Your task to perform on an android device: set default search engine in the chrome app Image 0: 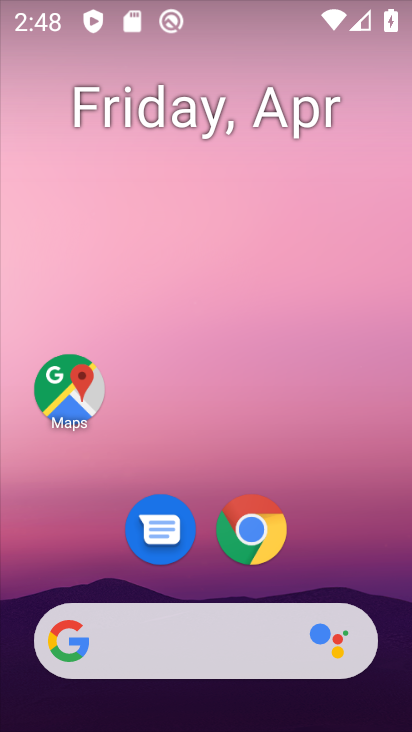
Step 0: drag from (250, 514) to (299, 145)
Your task to perform on an android device: set default search engine in the chrome app Image 1: 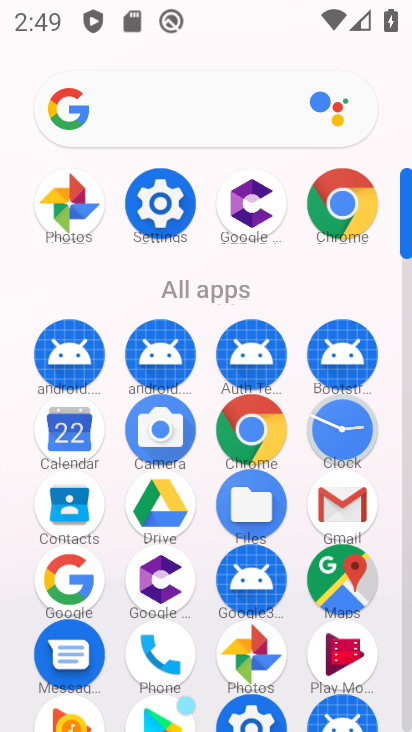
Step 1: click (249, 440)
Your task to perform on an android device: set default search engine in the chrome app Image 2: 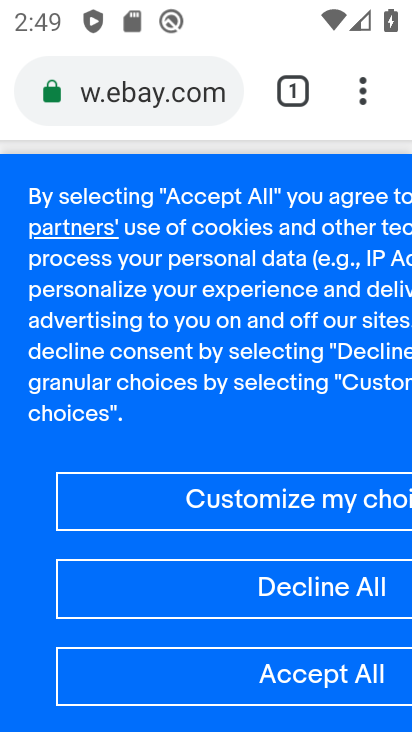
Step 2: click (366, 106)
Your task to perform on an android device: set default search engine in the chrome app Image 3: 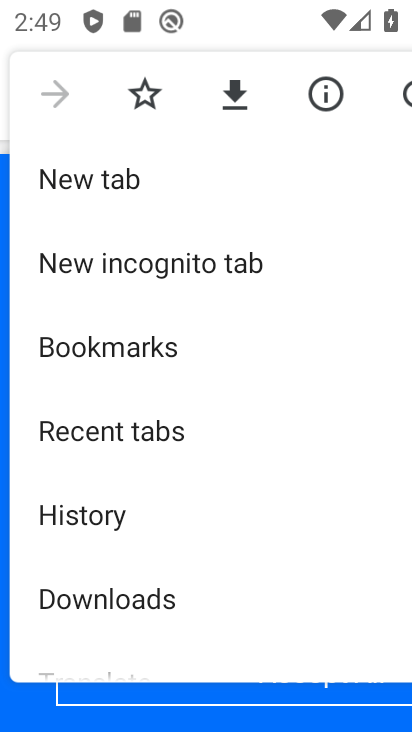
Step 3: drag from (230, 462) to (276, 1)
Your task to perform on an android device: set default search engine in the chrome app Image 4: 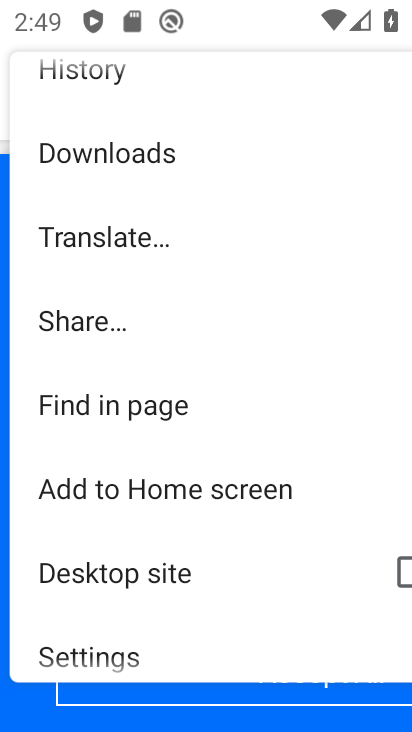
Step 4: drag from (208, 496) to (303, 0)
Your task to perform on an android device: set default search engine in the chrome app Image 5: 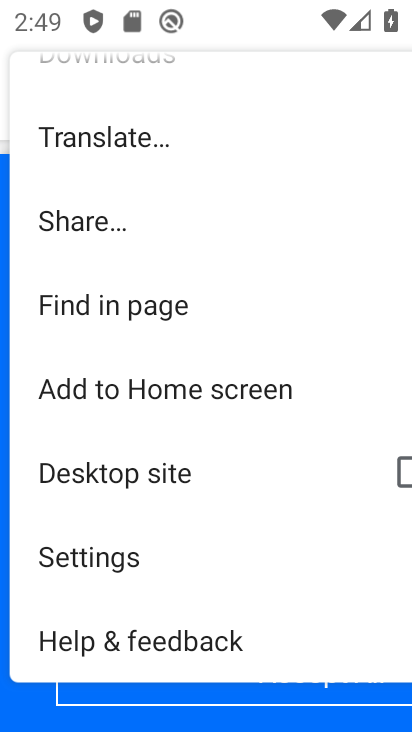
Step 5: click (197, 552)
Your task to perform on an android device: set default search engine in the chrome app Image 6: 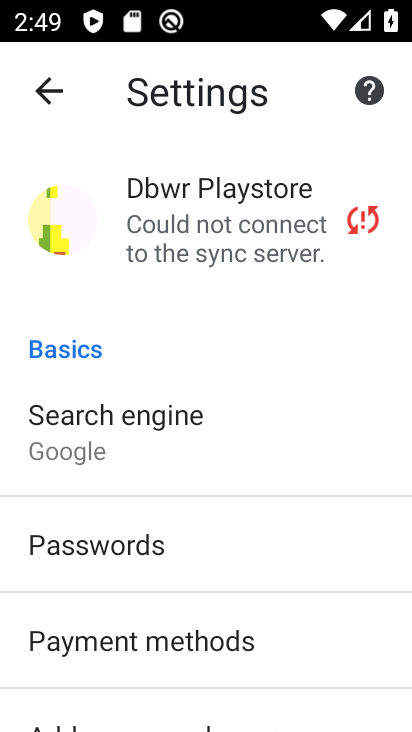
Step 6: click (179, 460)
Your task to perform on an android device: set default search engine in the chrome app Image 7: 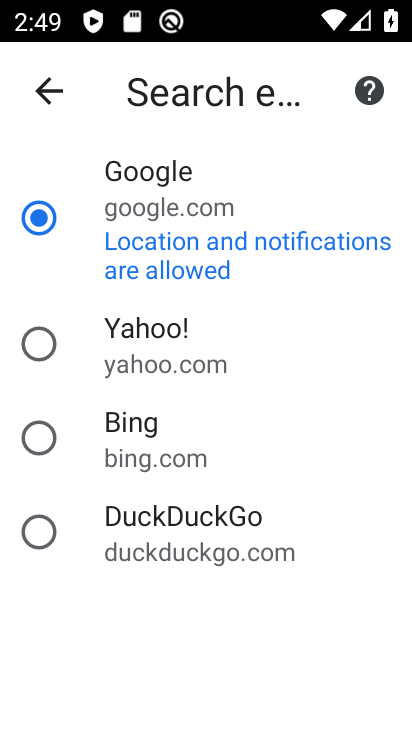
Step 7: task complete